Your task to perform on an android device: What's the weather going to be tomorrow? Image 0: 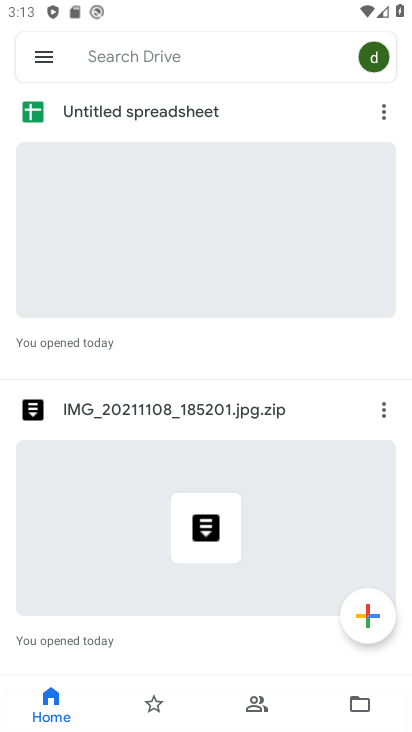
Step 0: press home button
Your task to perform on an android device: What's the weather going to be tomorrow? Image 1: 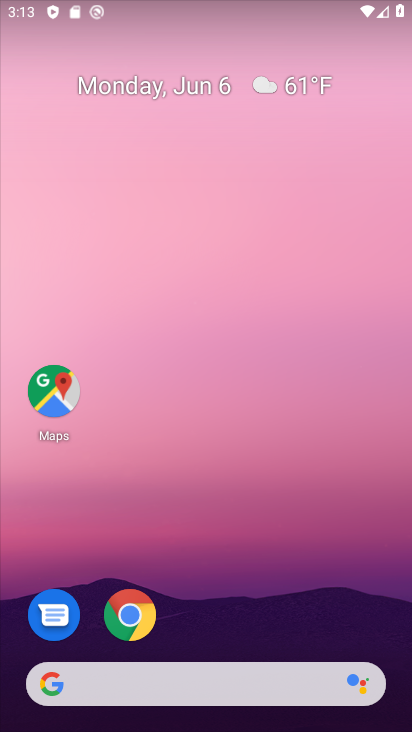
Step 1: click (297, 84)
Your task to perform on an android device: What's the weather going to be tomorrow? Image 2: 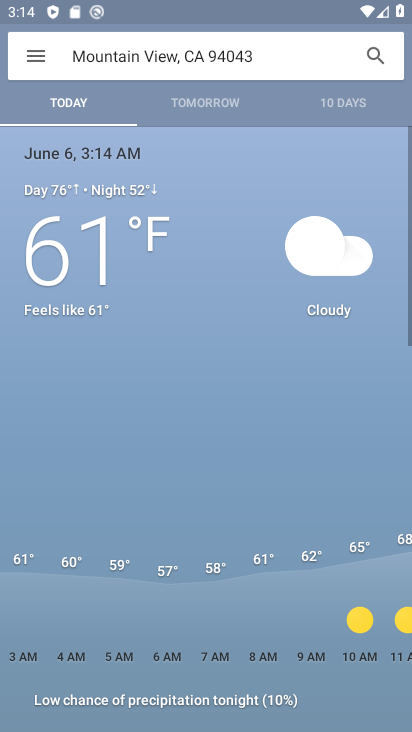
Step 2: click (183, 95)
Your task to perform on an android device: What's the weather going to be tomorrow? Image 3: 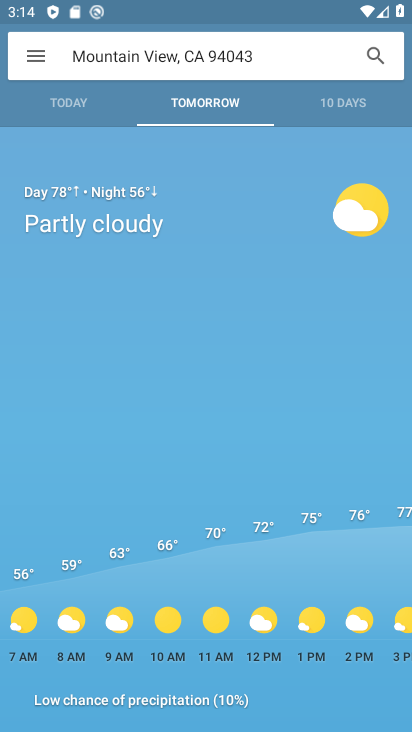
Step 3: task complete